Your task to perform on an android device: Go to eBay Image 0: 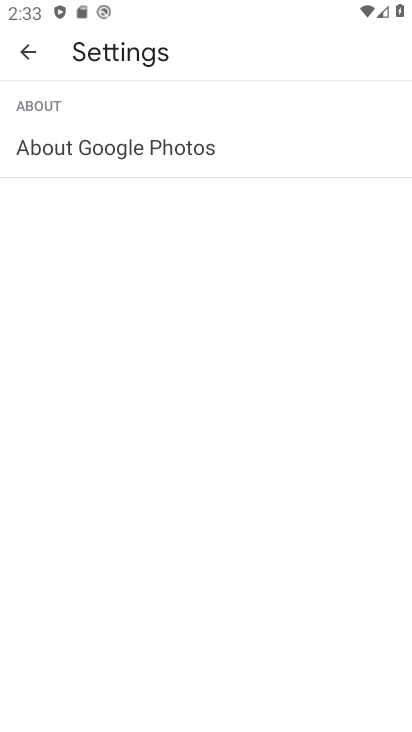
Step 0: press home button
Your task to perform on an android device: Go to eBay Image 1: 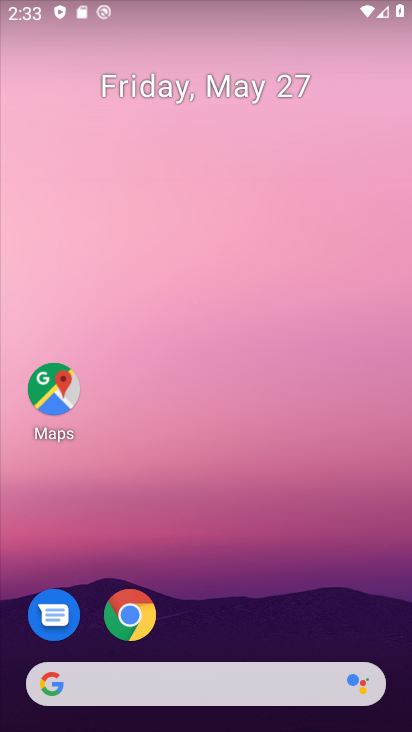
Step 1: drag from (226, 726) to (278, 32)
Your task to perform on an android device: Go to eBay Image 2: 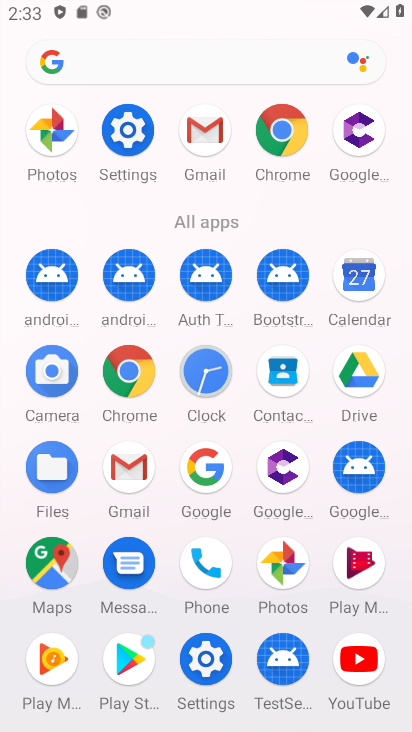
Step 2: click (283, 115)
Your task to perform on an android device: Go to eBay Image 3: 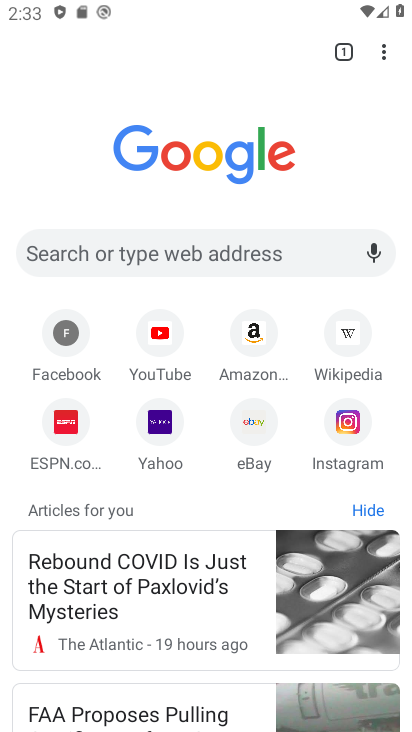
Step 3: click (257, 422)
Your task to perform on an android device: Go to eBay Image 4: 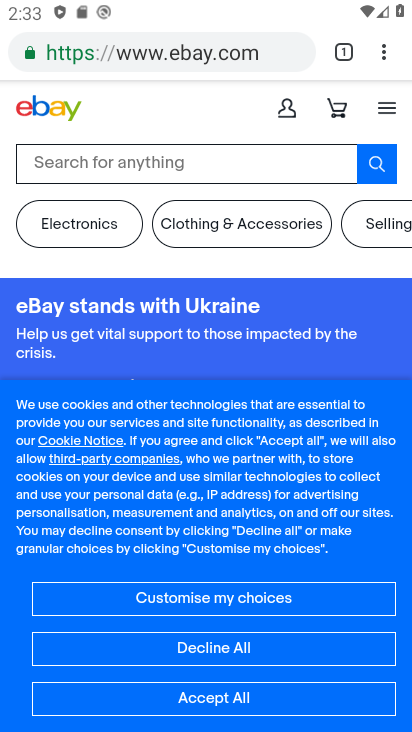
Step 4: task complete